Your task to perform on an android device: Open Google Maps and go to "Timeline" Image 0: 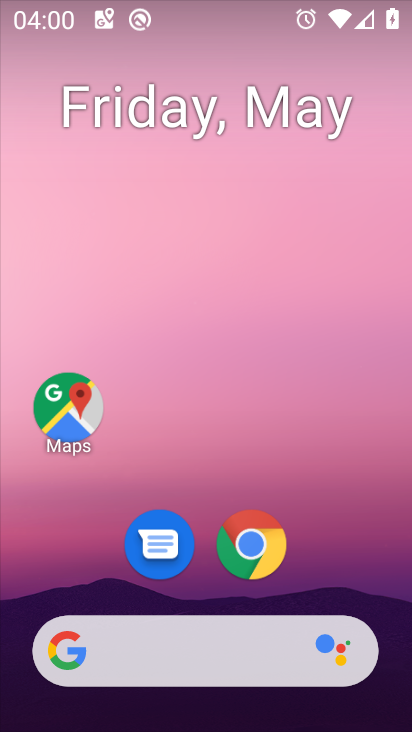
Step 0: drag from (249, 654) to (131, 4)
Your task to perform on an android device: Open Google Maps and go to "Timeline" Image 1: 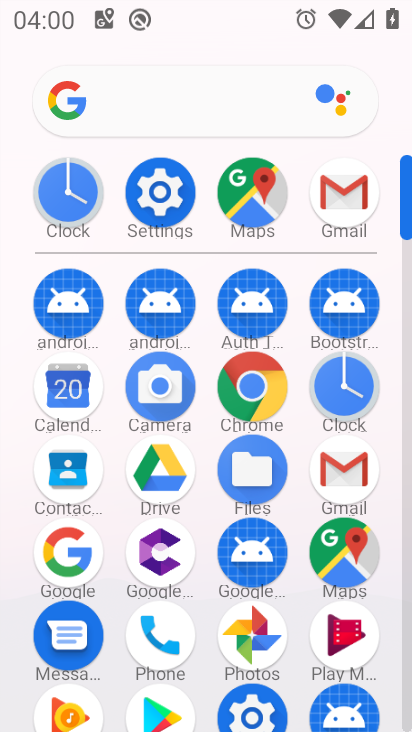
Step 1: click (331, 559)
Your task to perform on an android device: Open Google Maps and go to "Timeline" Image 2: 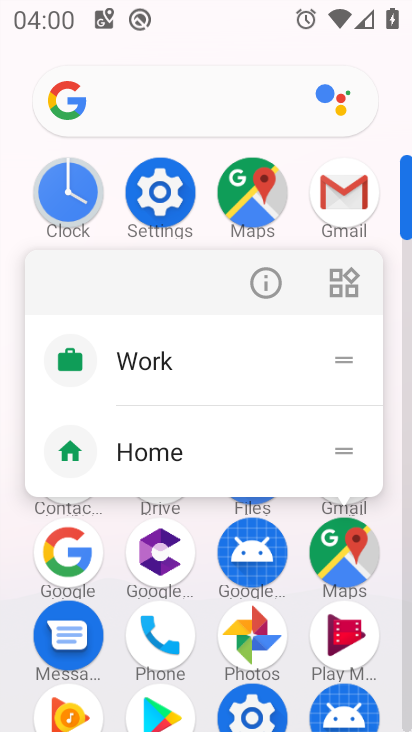
Step 2: click (342, 578)
Your task to perform on an android device: Open Google Maps and go to "Timeline" Image 3: 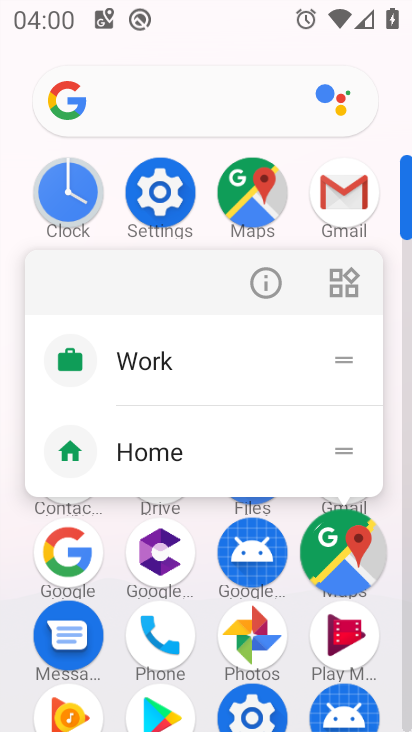
Step 3: click (352, 560)
Your task to perform on an android device: Open Google Maps and go to "Timeline" Image 4: 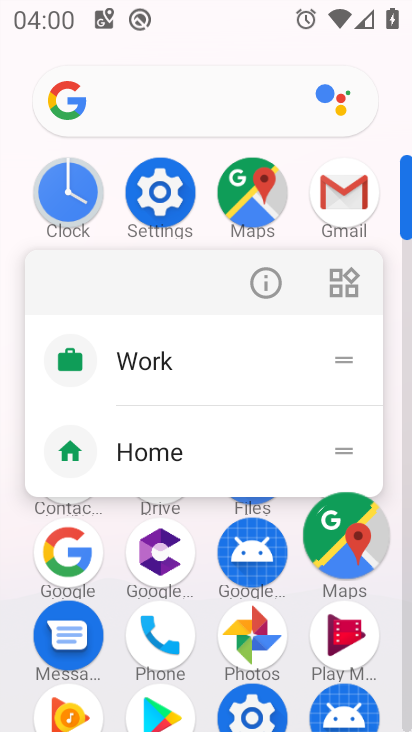
Step 4: click (351, 541)
Your task to perform on an android device: Open Google Maps and go to "Timeline" Image 5: 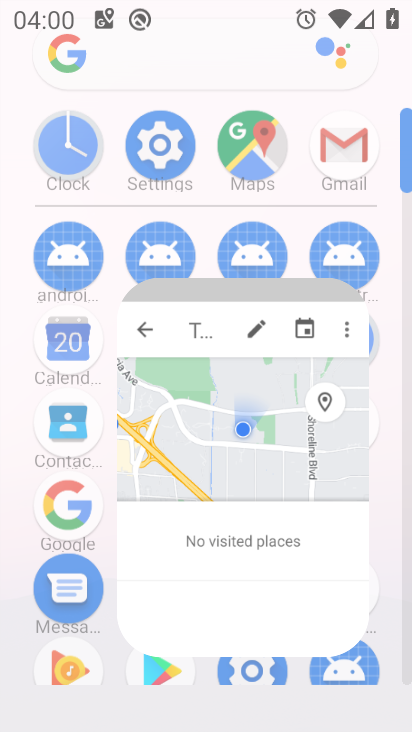
Step 5: click (336, 527)
Your task to perform on an android device: Open Google Maps and go to "Timeline" Image 6: 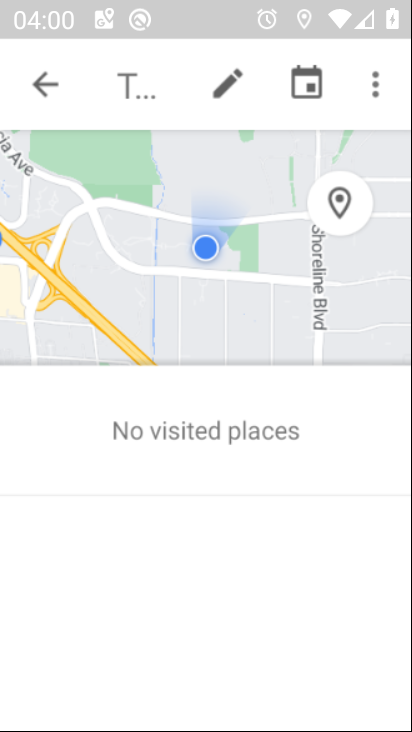
Step 6: click (333, 517)
Your task to perform on an android device: Open Google Maps and go to "Timeline" Image 7: 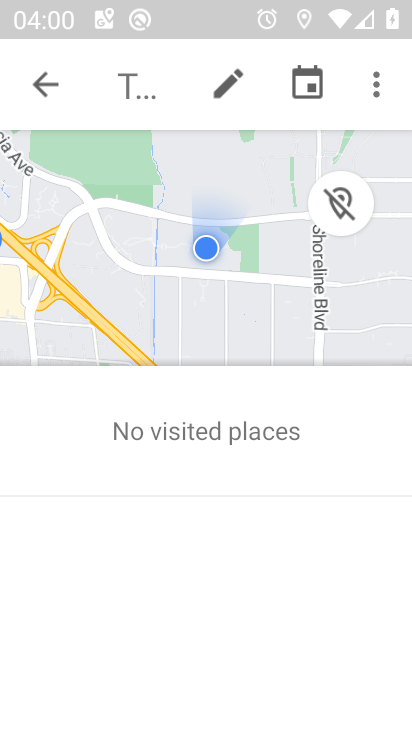
Step 7: click (37, 85)
Your task to perform on an android device: Open Google Maps and go to "Timeline" Image 8: 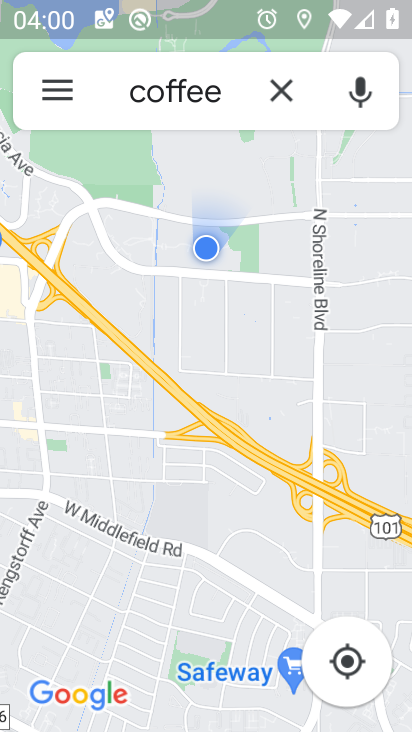
Step 8: click (58, 105)
Your task to perform on an android device: Open Google Maps and go to "Timeline" Image 9: 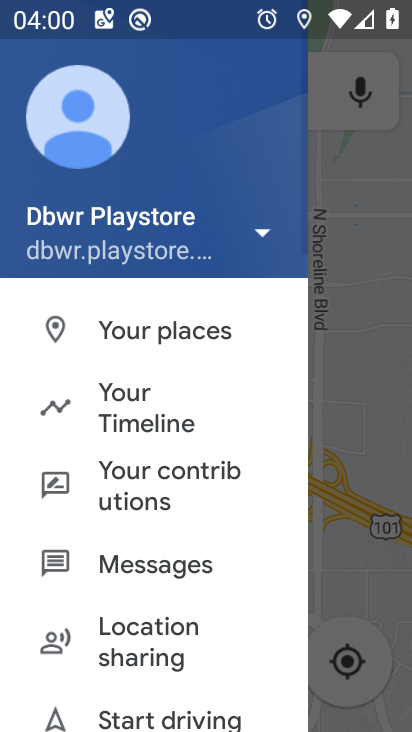
Step 9: click (155, 437)
Your task to perform on an android device: Open Google Maps and go to "Timeline" Image 10: 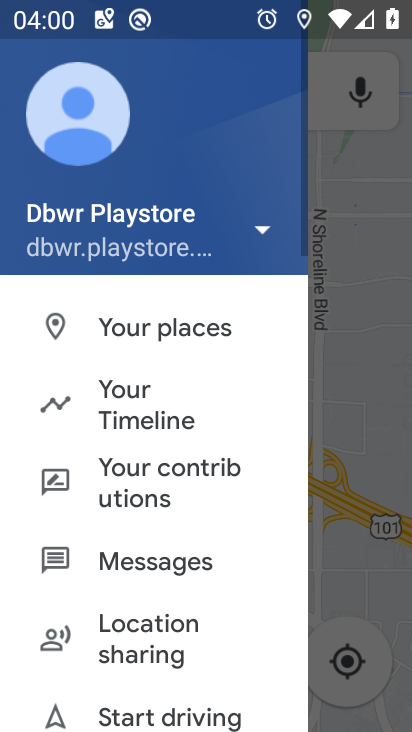
Step 10: click (146, 420)
Your task to perform on an android device: Open Google Maps and go to "Timeline" Image 11: 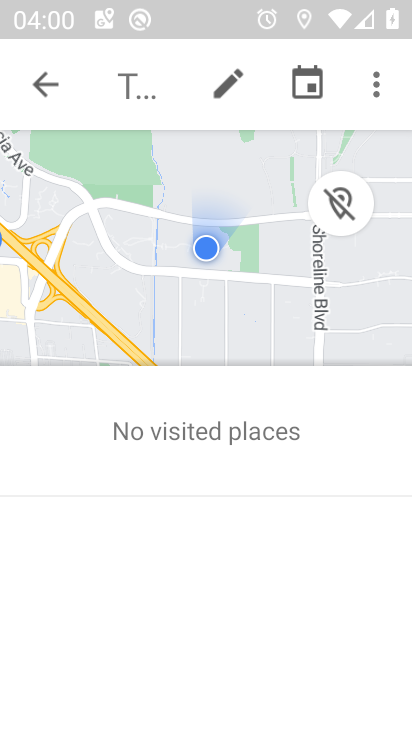
Step 11: click (43, 83)
Your task to perform on an android device: Open Google Maps and go to "Timeline" Image 12: 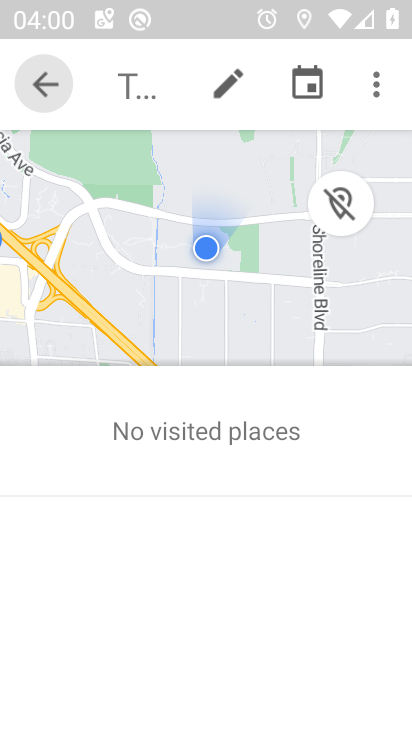
Step 12: click (45, 87)
Your task to perform on an android device: Open Google Maps and go to "Timeline" Image 13: 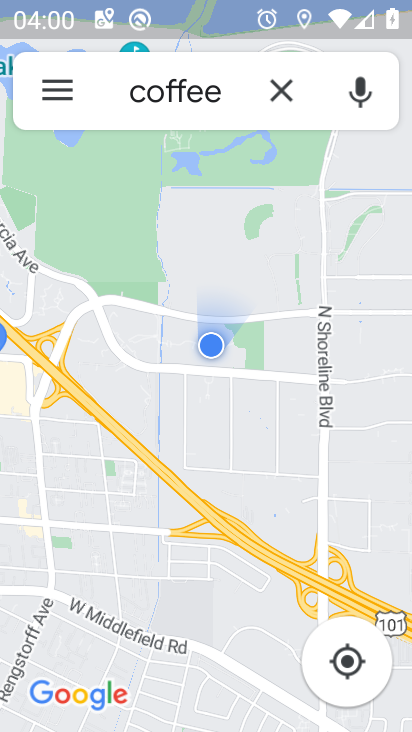
Step 13: click (55, 87)
Your task to perform on an android device: Open Google Maps and go to "Timeline" Image 14: 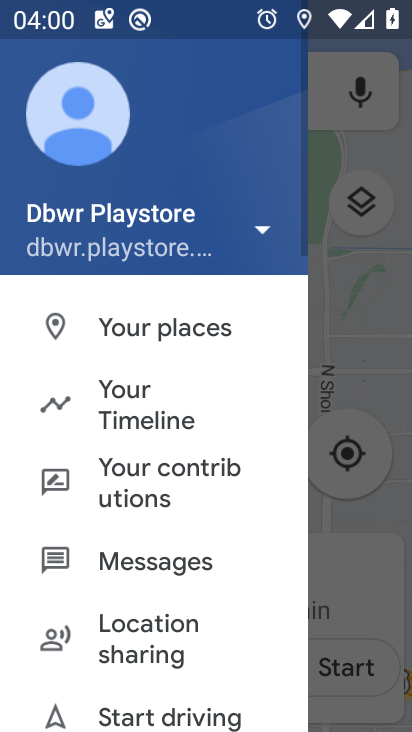
Step 14: click (186, 441)
Your task to perform on an android device: Open Google Maps and go to "Timeline" Image 15: 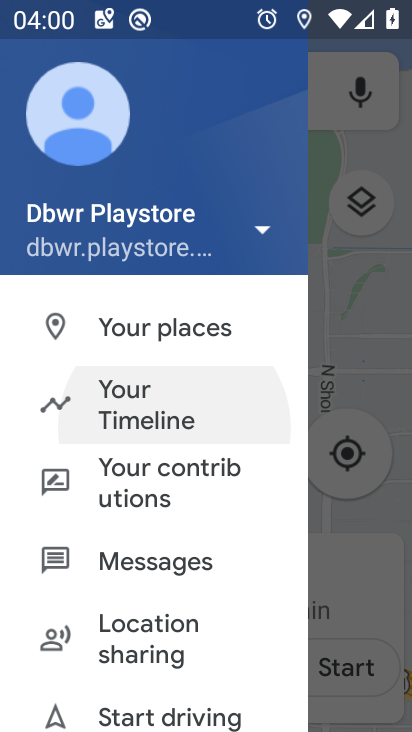
Step 15: click (164, 423)
Your task to perform on an android device: Open Google Maps and go to "Timeline" Image 16: 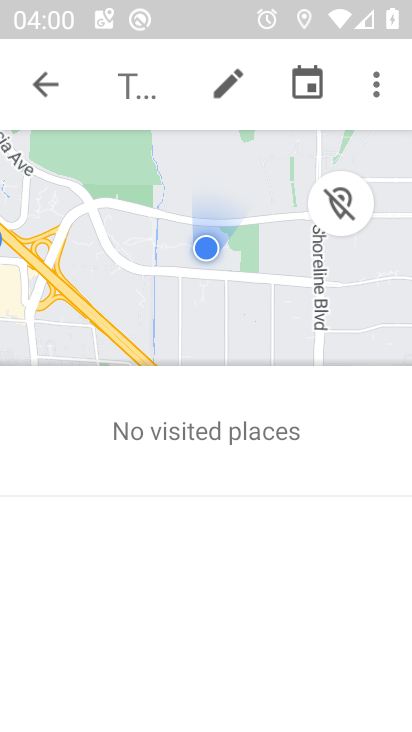
Step 16: click (376, 94)
Your task to perform on an android device: Open Google Maps and go to "Timeline" Image 17: 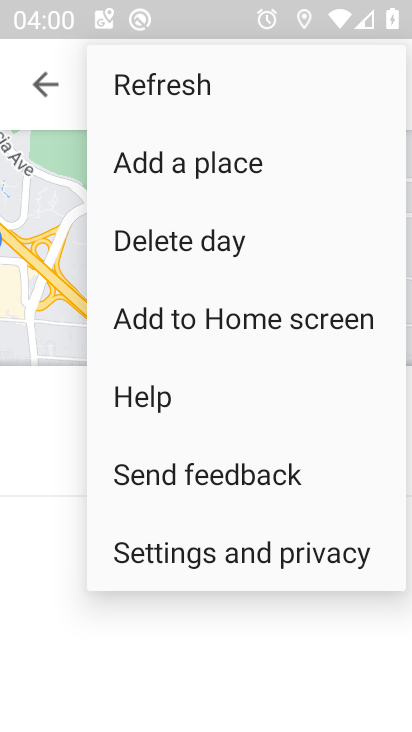
Step 17: click (250, 562)
Your task to perform on an android device: Open Google Maps and go to "Timeline" Image 18: 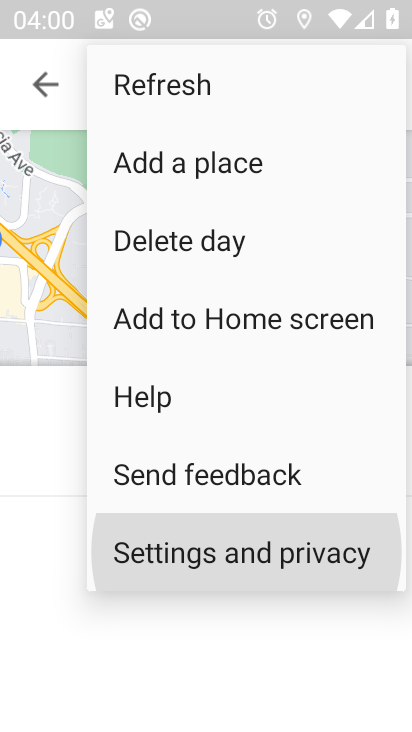
Step 18: click (251, 560)
Your task to perform on an android device: Open Google Maps and go to "Timeline" Image 19: 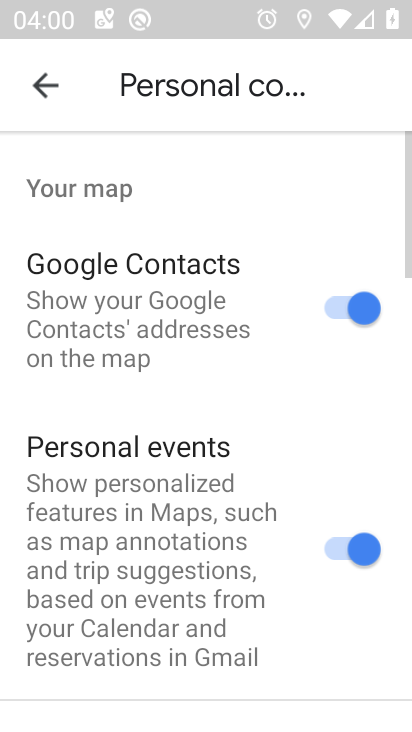
Step 19: task complete